Your task to perform on an android device: turn off wifi Image 0: 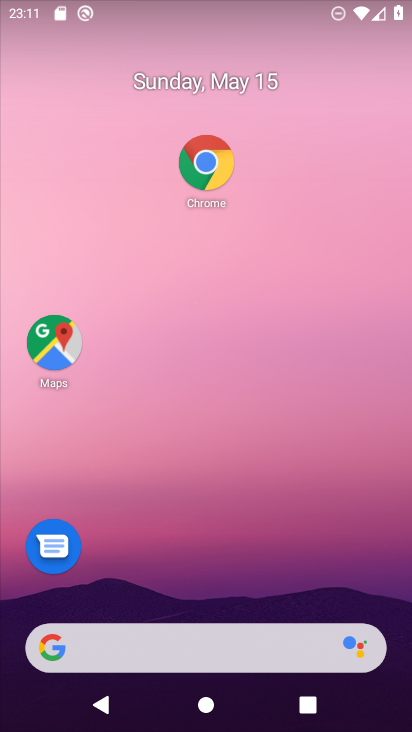
Step 0: drag from (227, 540) to (277, 214)
Your task to perform on an android device: turn off wifi Image 1: 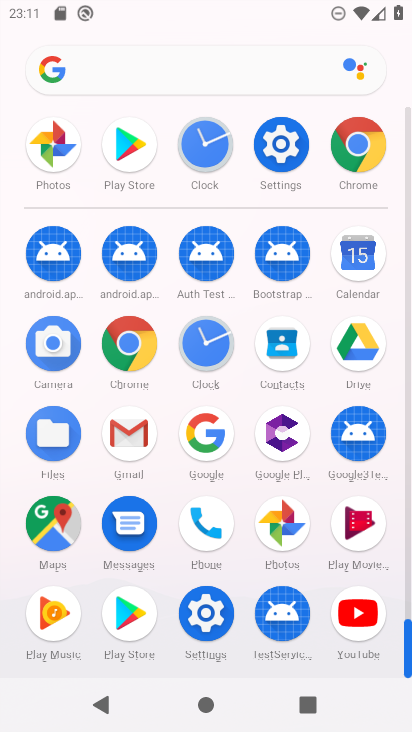
Step 1: click (280, 133)
Your task to perform on an android device: turn off wifi Image 2: 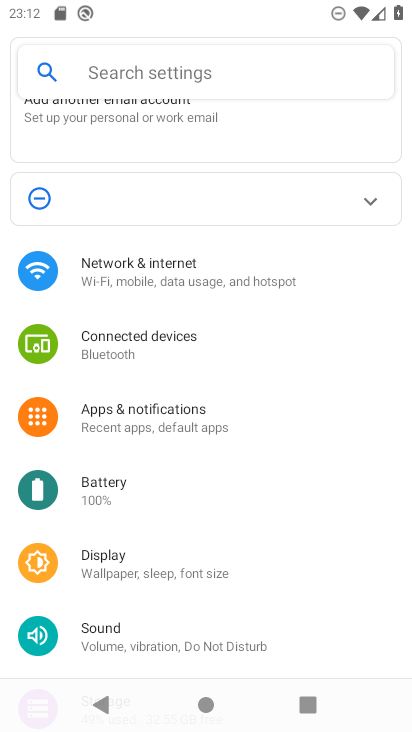
Step 2: click (114, 282)
Your task to perform on an android device: turn off wifi Image 3: 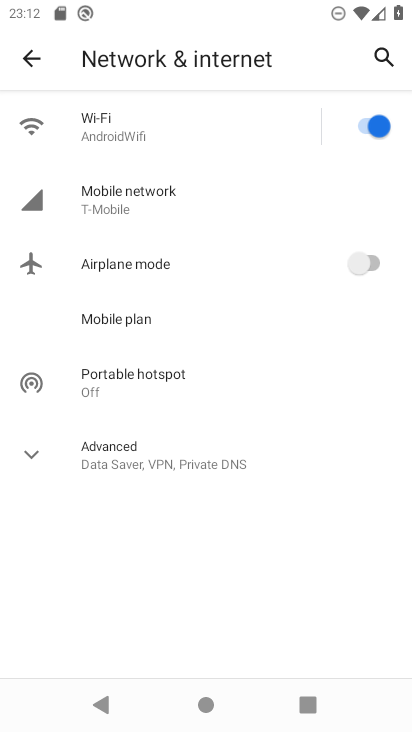
Step 3: click (365, 129)
Your task to perform on an android device: turn off wifi Image 4: 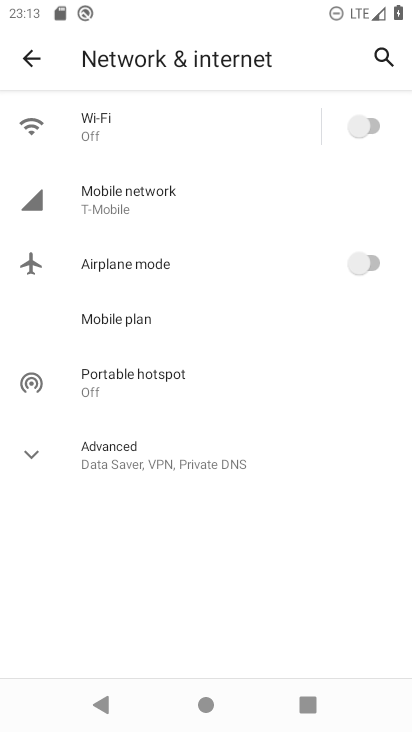
Step 4: task complete